Your task to perform on an android device: Open privacy settings Image 0: 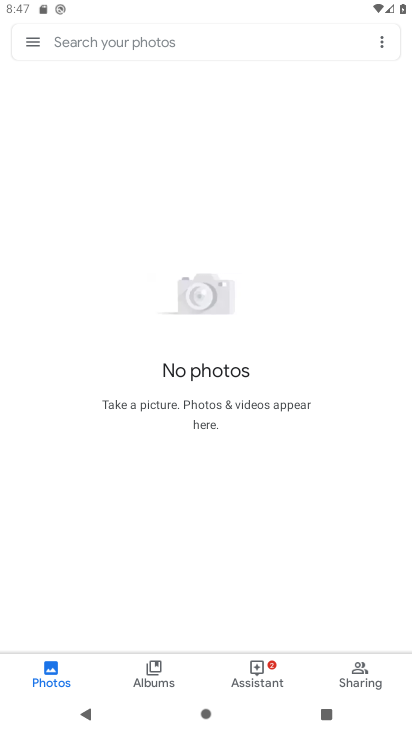
Step 0: press home button
Your task to perform on an android device: Open privacy settings Image 1: 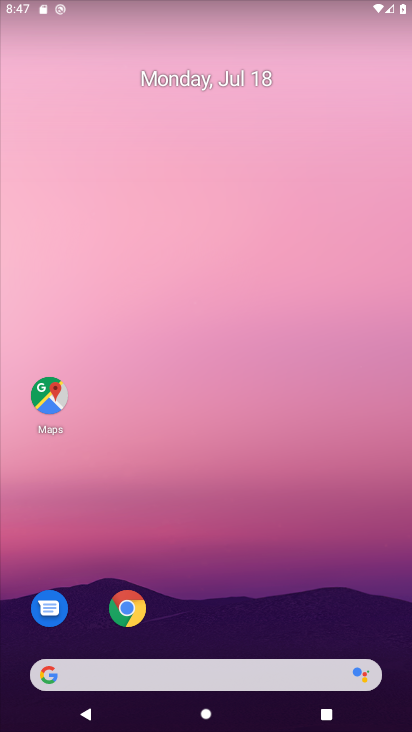
Step 1: drag from (191, 678) to (216, 58)
Your task to perform on an android device: Open privacy settings Image 2: 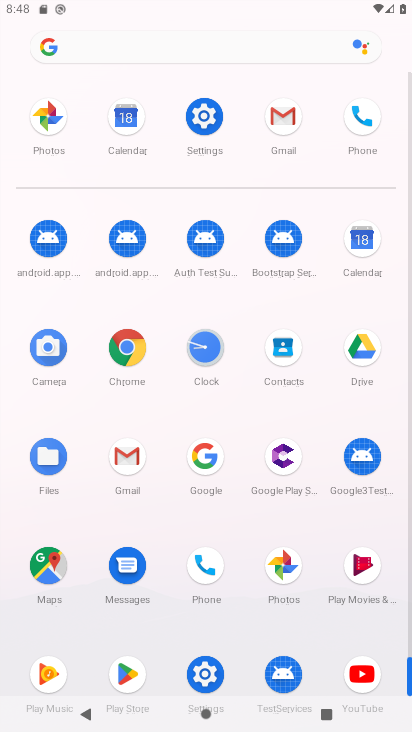
Step 2: click (204, 117)
Your task to perform on an android device: Open privacy settings Image 3: 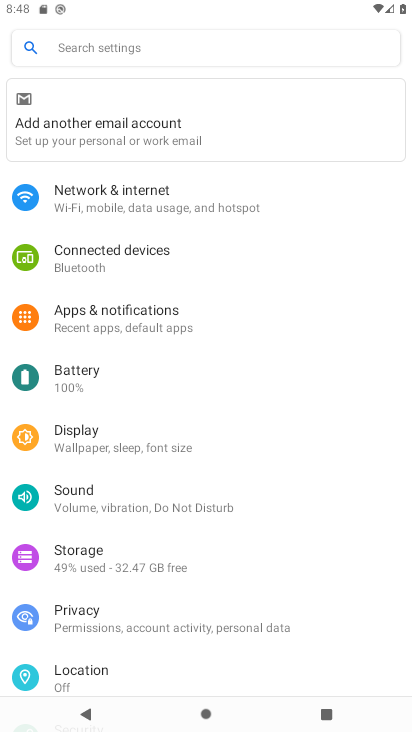
Step 3: click (82, 614)
Your task to perform on an android device: Open privacy settings Image 4: 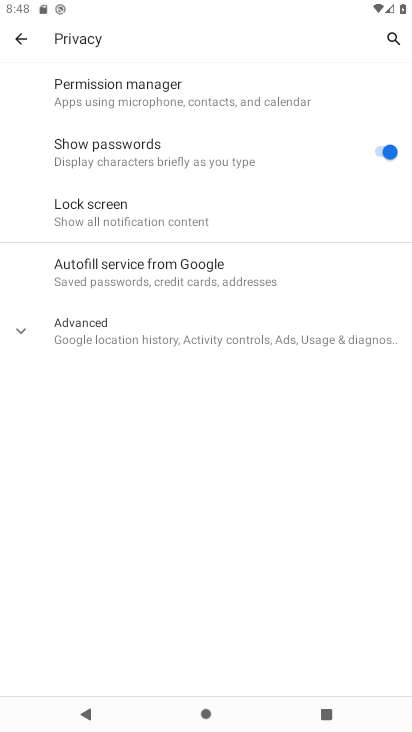
Step 4: task complete